Your task to perform on an android device: open app "LinkedIn" (install if not already installed) Image 0: 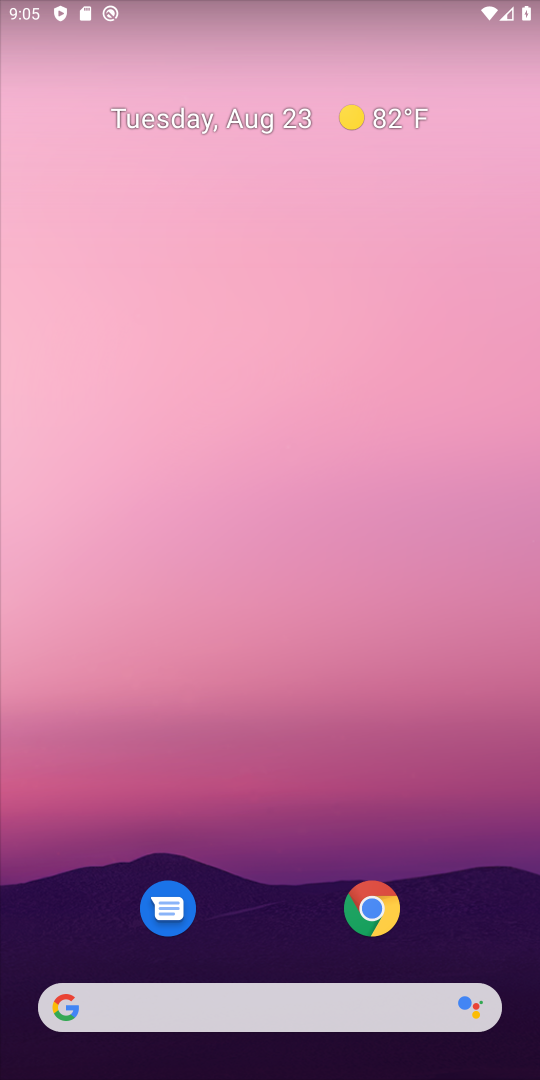
Step 0: drag from (254, 874) to (307, 159)
Your task to perform on an android device: open app "LinkedIn" (install if not already installed) Image 1: 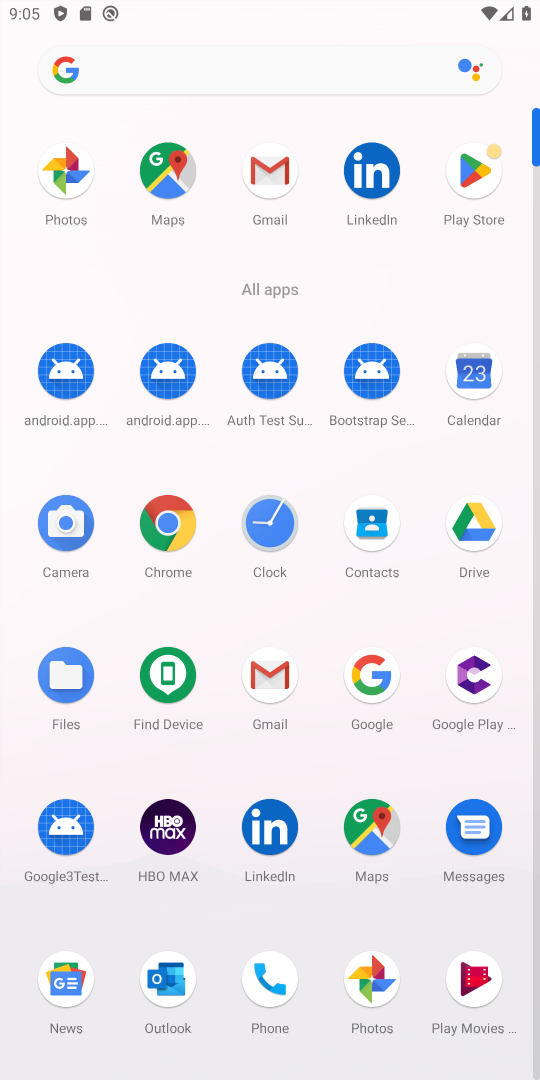
Step 1: click (378, 182)
Your task to perform on an android device: open app "LinkedIn" (install if not already installed) Image 2: 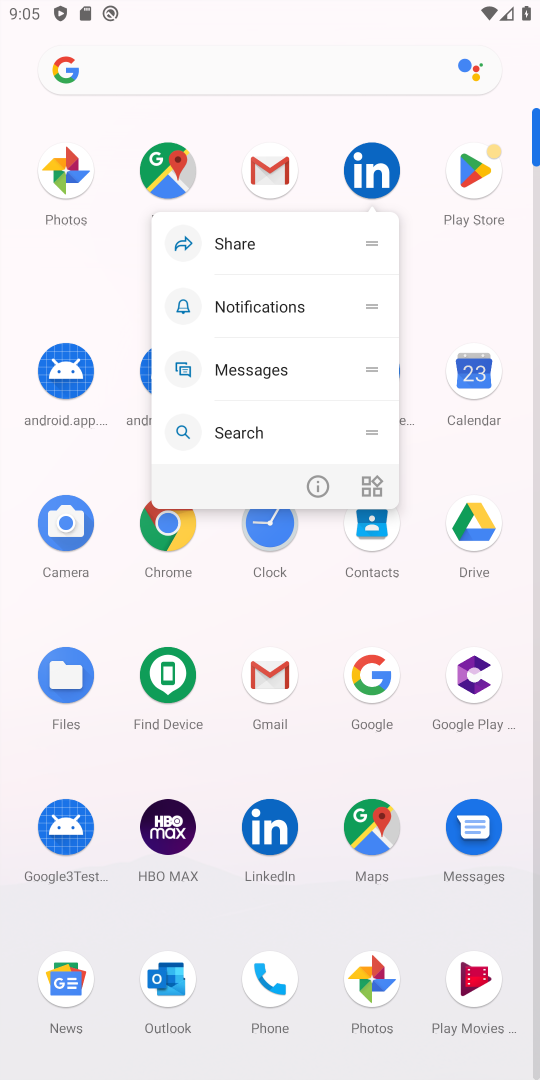
Step 2: click (364, 176)
Your task to perform on an android device: open app "LinkedIn" (install if not already installed) Image 3: 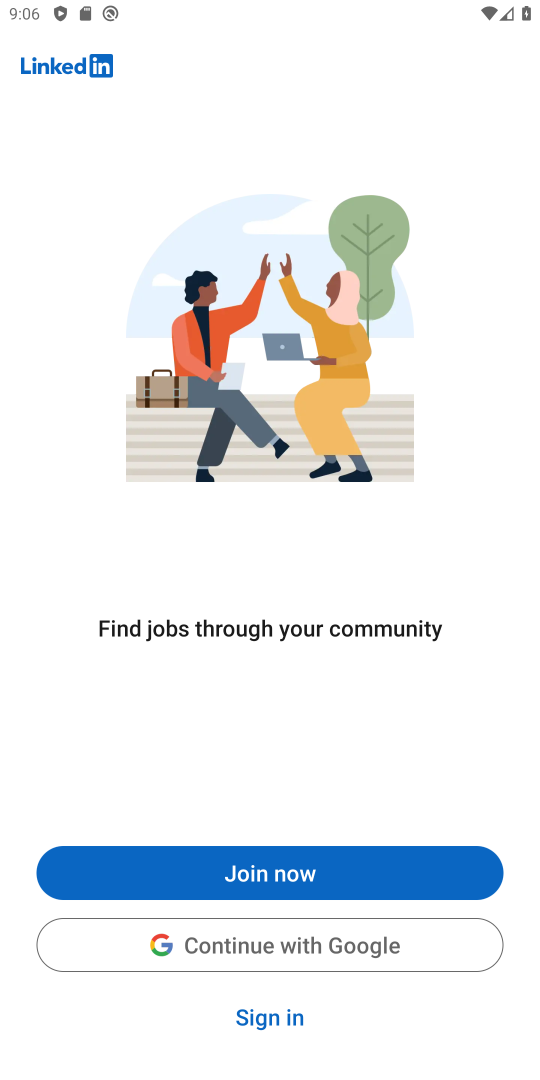
Step 3: click (288, 1017)
Your task to perform on an android device: open app "LinkedIn" (install if not already installed) Image 4: 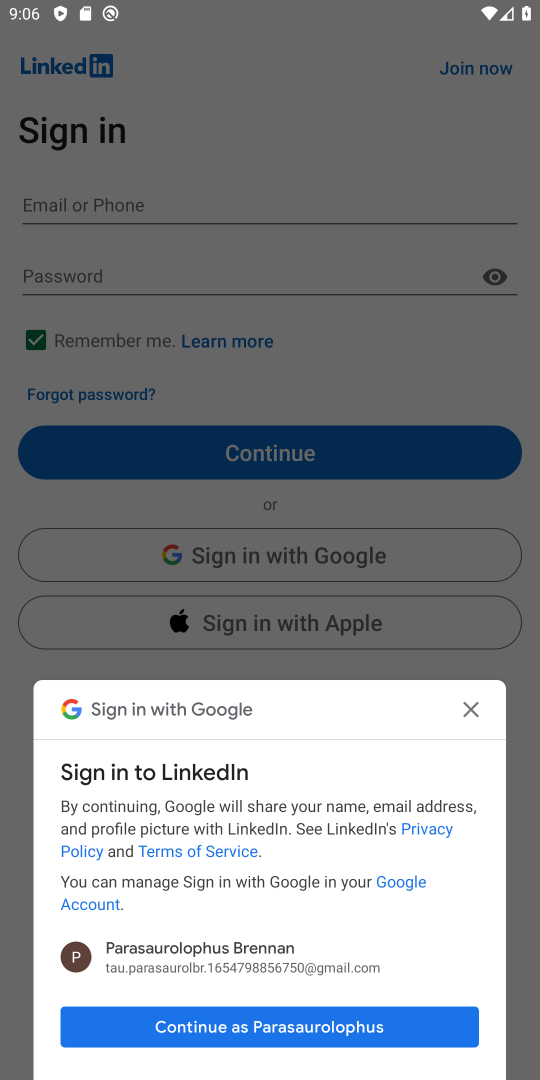
Step 4: task complete